Your task to perform on an android device: open device folders in google photos Image 0: 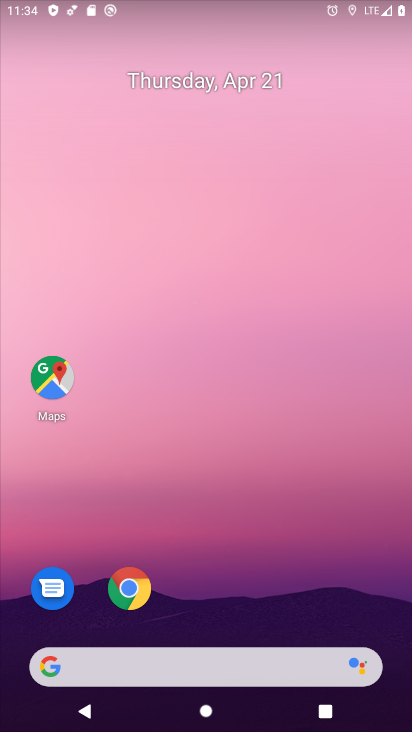
Step 0: drag from (292, 686) to (346, 140)
Your task to perform on an android device: open device folders in google photos Image 1: 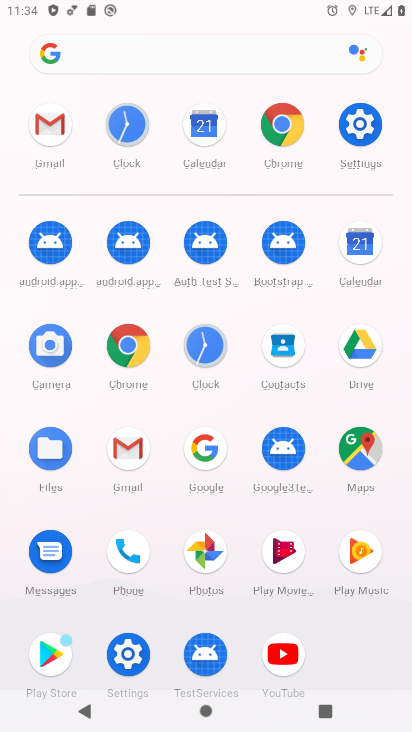
Step 1: click (201, 537)
Your task to perform on an android device: open device folders in google photos Image 2: 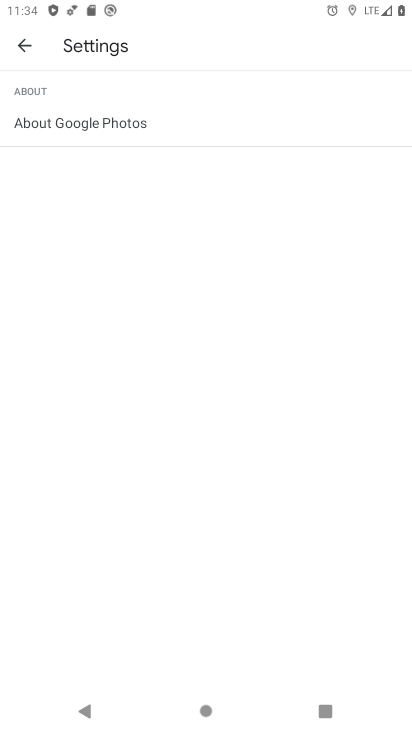
Step 2: click (28, 45)
Your task to perform on an android device: open device folders in google photos Image 3: 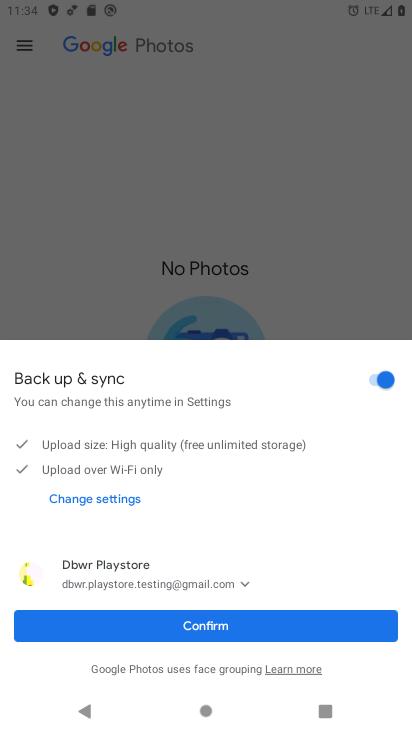
Step 3: click (209, 618)
Your task to perform on an android device: open device folders in google photos Image 4: 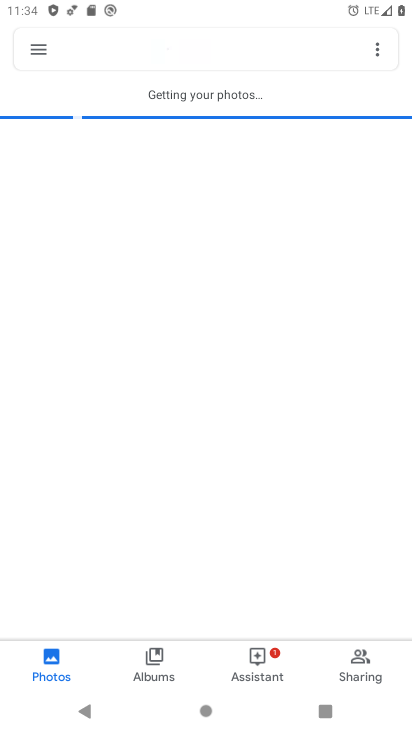
Step 4: click (44, 53)
Your task to perform on an android device: open device folders in google photos Image 5: 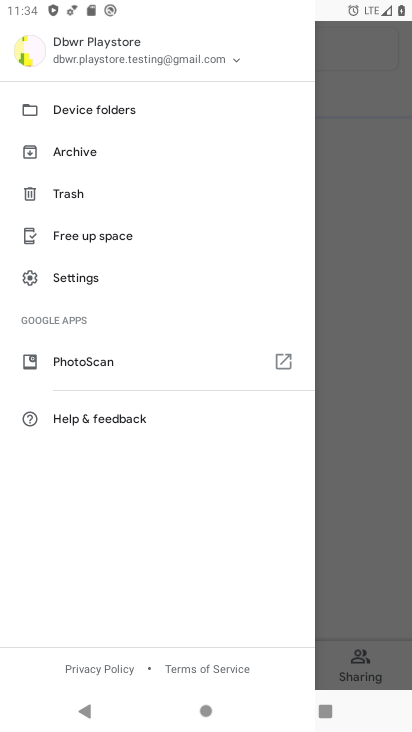
Step 5: click (67, 108)
Your task to perform on an android device: open device folders in google photos Image 6: 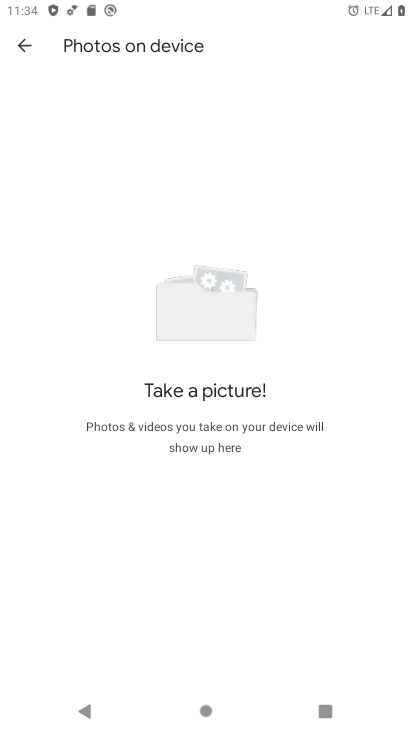
Step 6: task complete